Your task to perform on an android device: Add "logitech g pro" to the cart on walmart, then select checkout. Image 0: 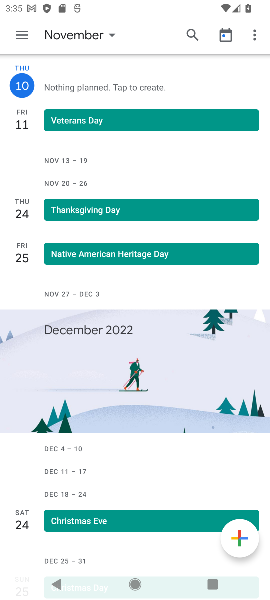
Step 0: press home button
Your task to perform on an android device: Add "logitech g pro" to the cart on walmart, then select checkout. Image 1: 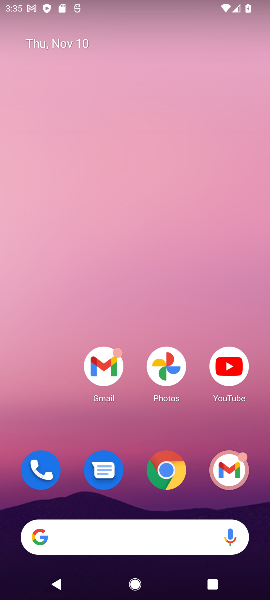
Step 1: click (172, 465)
Your task to perform on an android device: Add "logitech g pro" to the cart on walmart, then select checkout. Image 2: 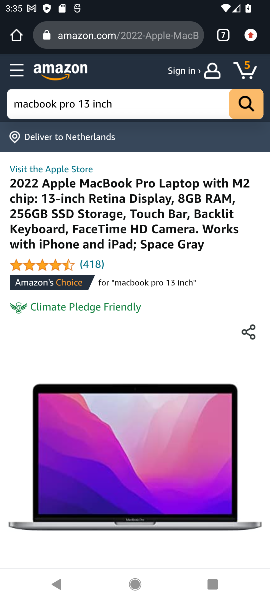
Step 2: click (223, 37)
Your task to perform on an android device: Add "logitech g pro" to the cart on walmart, then select checkout. Image 3: 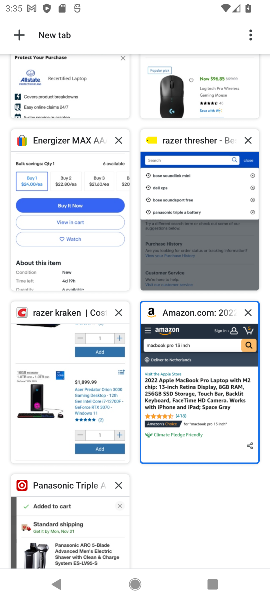
Step 3: drag from (183, 101) to (162, 408)
Your task to perform on an android device: Add "logitech g pro" to the cart on walmart, then select checkout. Image 4: 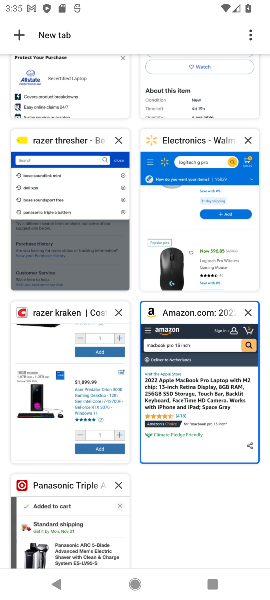
Step 4: click (190, 175)
Your task to perform on an android device: Add "logitech g pro" to the cart on walmart, then select checkout. Image 5: 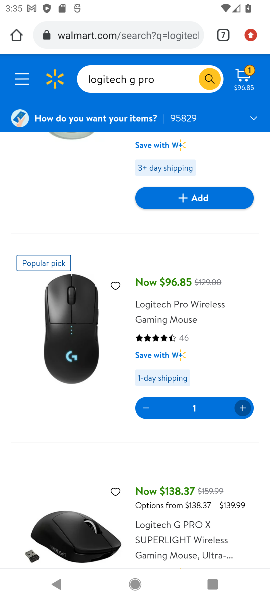
Step 5: click (244, 409)
Your task to perform on an android device: Add "logitech g pro" to the cart on walmart, then select checkout. Image 6: 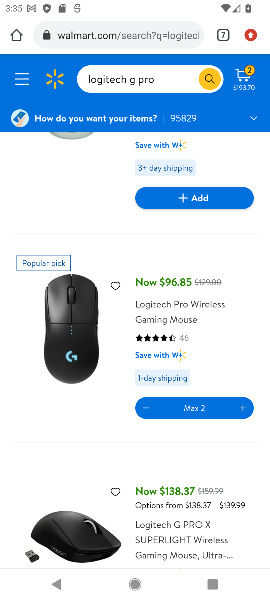
Step 6: click (249, 78)
Your task to perform on an android device: Add "logitech g pro" to the cart on walmart, then select checkout. Image 7: 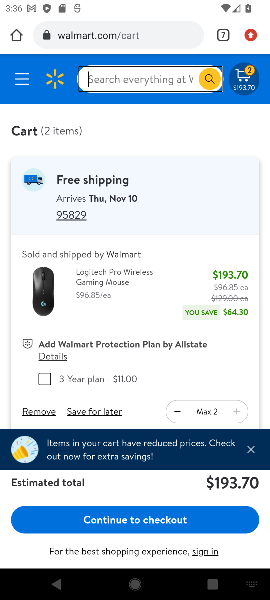
Step 7: click (146, 520)
Your task to perform on an android device: Add "logitech g pro" to the cart on walmart, then select checkout. Image 8: 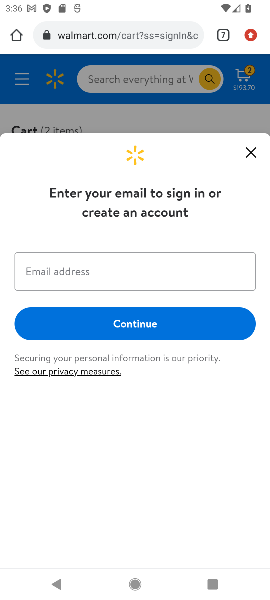
Step 8: task complete